Your task to perform on an android device: Open CNN.com Image 0: 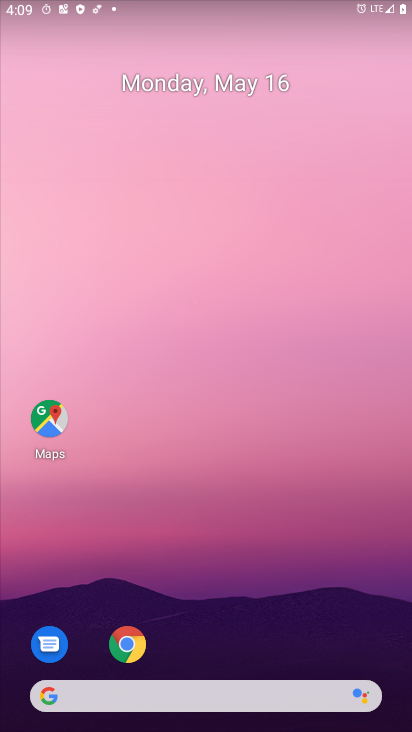
Step 0: click (139, 648)
Your task to perform on an android device: Open CNN.com Image 1: 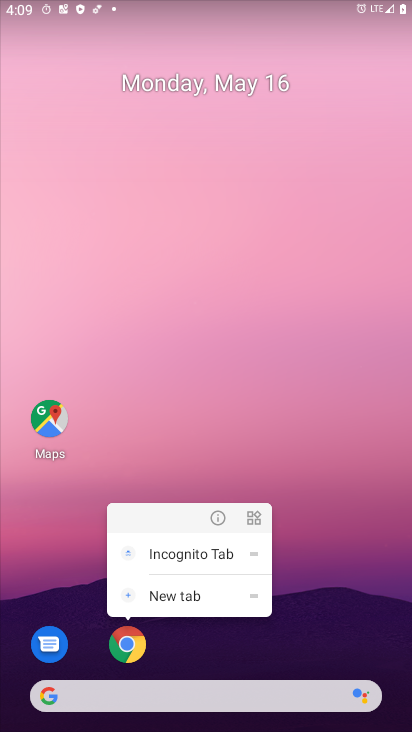
Step 1: click (129, 651)
Your task to perform on an android device: Open CNN.com Image 2: 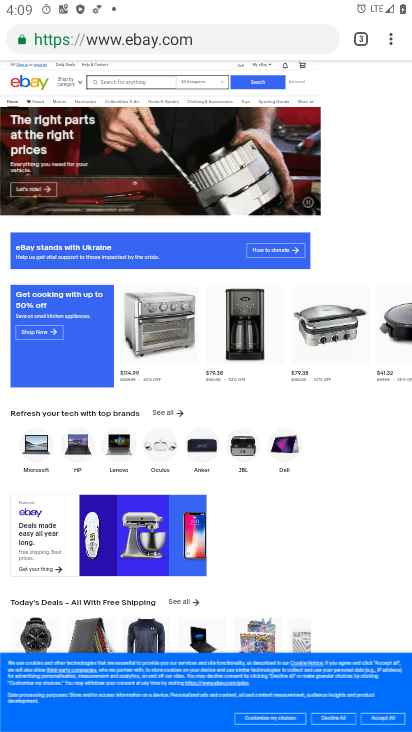
Step 2: click (280, 40)
Your task to perform on an android device: Open CNN.com Image 3: 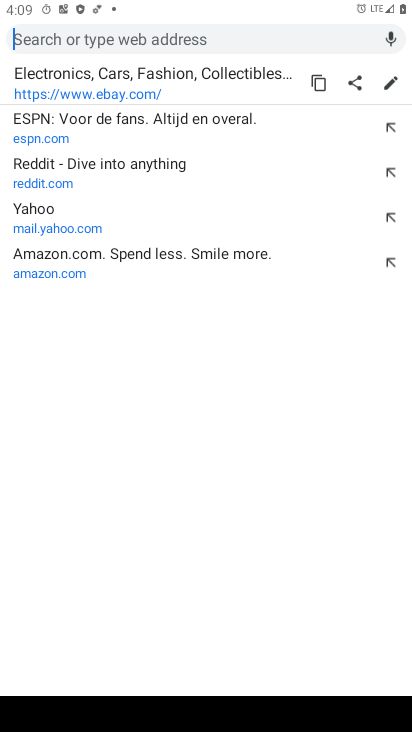
Step 3: type "cnn"
Your task to perform on an android device: Open CNN.com Image 4: 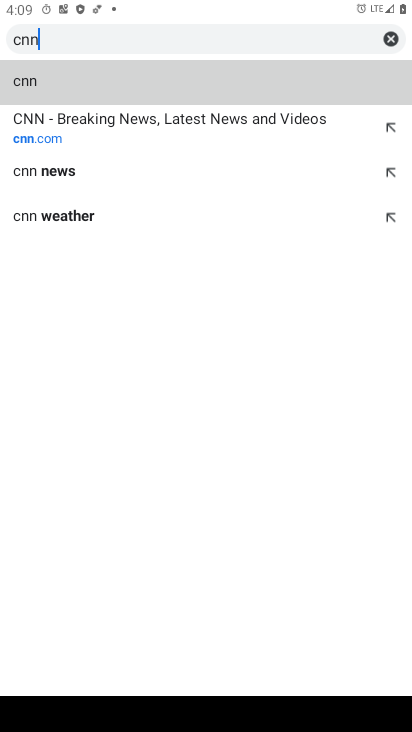
Step 4: click (155, 137)
Your task to perform on an android device: Open CNN.com Image 5: 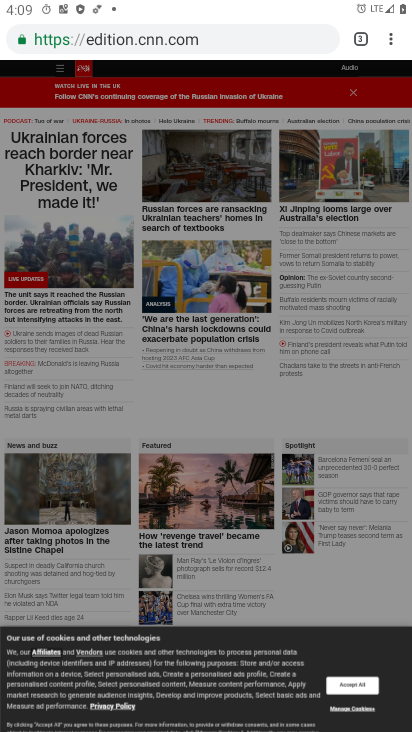
Step 5: task complete